Your task to perform on an android device: open device folders in google photos Image 0: 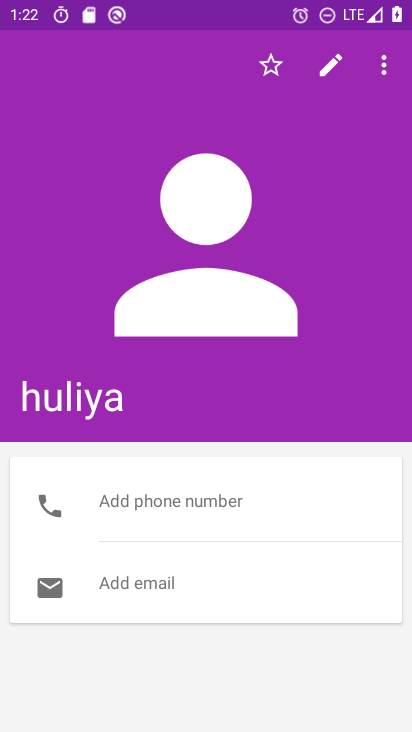
Step 0: press home button
Your task to perform on an android device: open device folders in google photos Image 1: 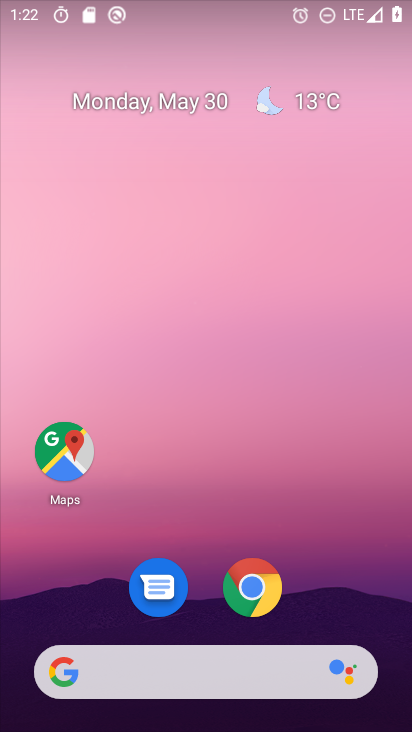
Step 1: drag from (305, 598) to (319, 163)
Your task to perform on an android device: open device folders in google photos Image 2: 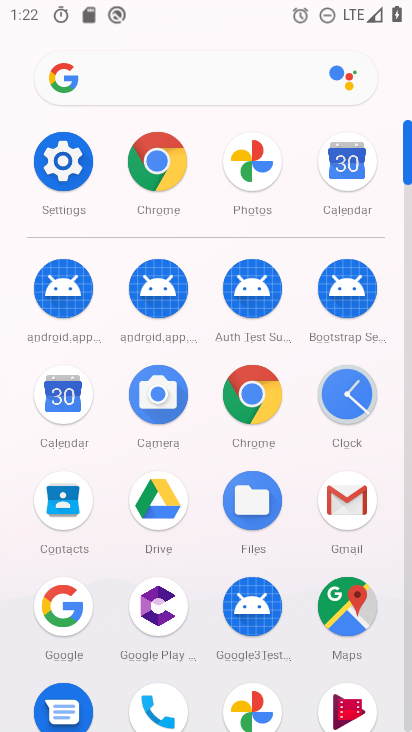
Step 2: click (255, 168)
Your task to perform on an android device: open device folders in google photos Image 3: 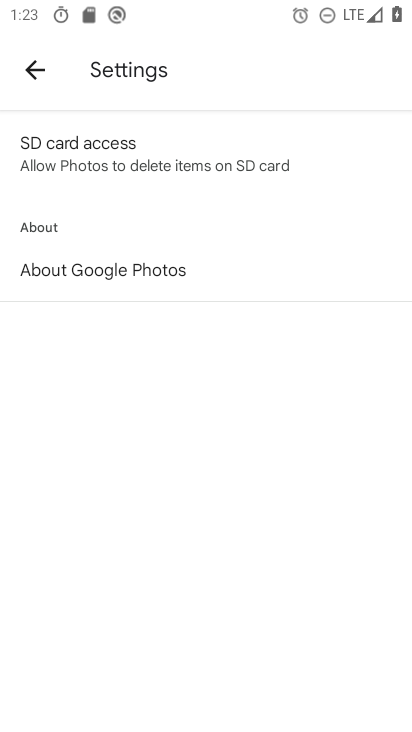
Step 3: click (39, 72)
Your task to perform on an android device: open device folders in google photos Image 4: 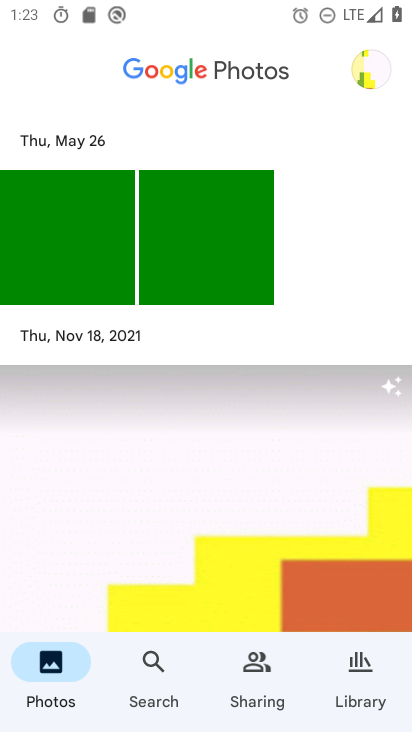
Step 4: click (356, 691)
Your task to perform on an android device: open device folders in google photos Image 5: 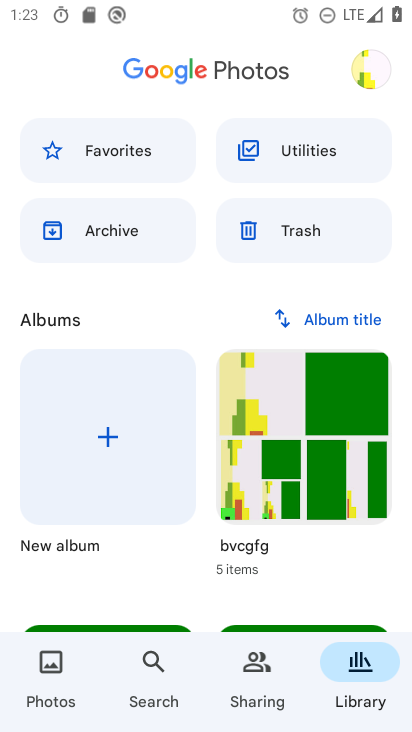
Step 5: click (323, 132)
Your task to perform on an android device: open device folders in google photos Image 6: 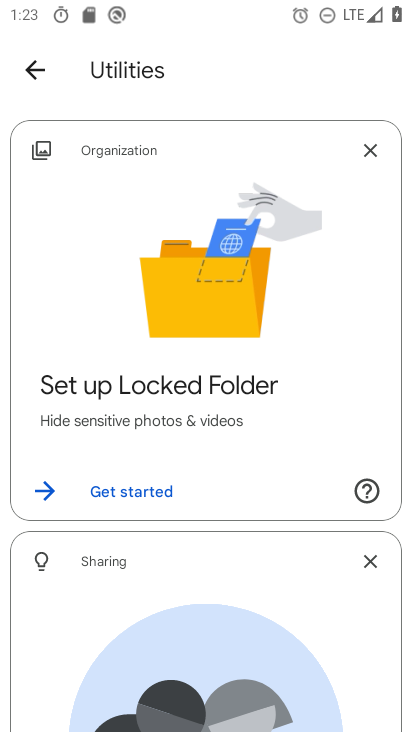
Step 6: drag from (187, 557) to (319, 97)
Your task to perform on an android device: open device folders in google photos Image 7: 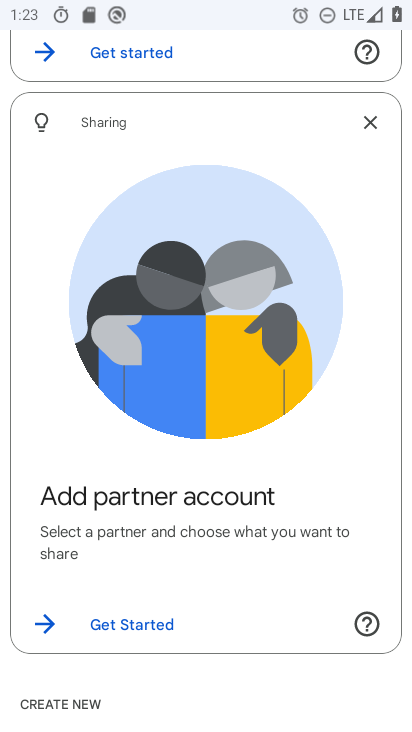
Step 7: drag from (250, 600) to (287, 80)
Your task to perform on an android device: open device folders in google photos Image 8: 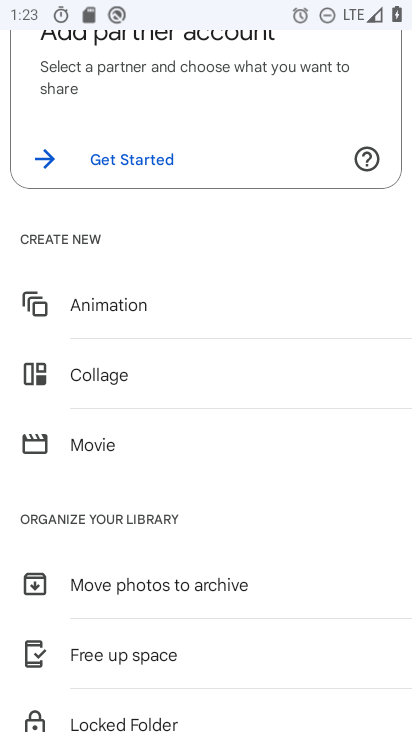
Step 8: drag from (238, 628) to (261, 236)
Your task to perform on an android device: open device folders in google photos Image 9: 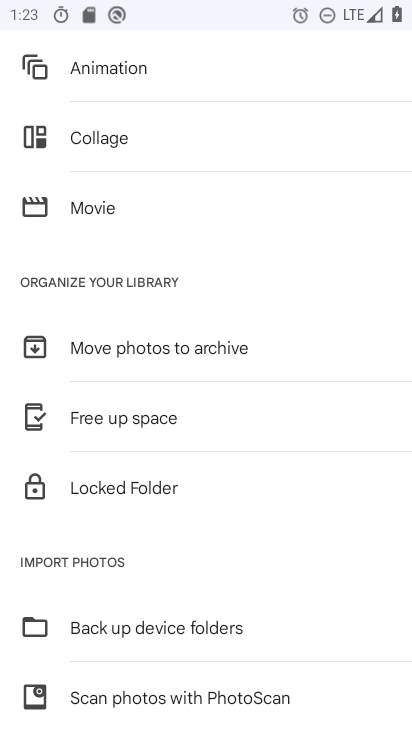
Step 9: click (210, 620)
Your task to perform on an android device: open device folders in google photos Image 10: 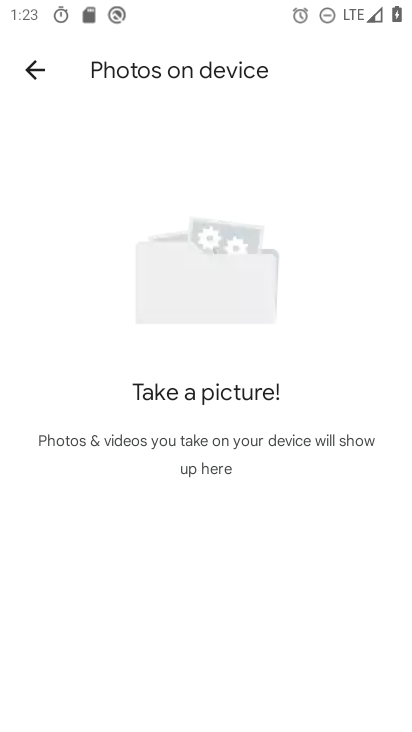
Step 10: task complete